Your task to perform on an android device: change text size in settings app Image 0: 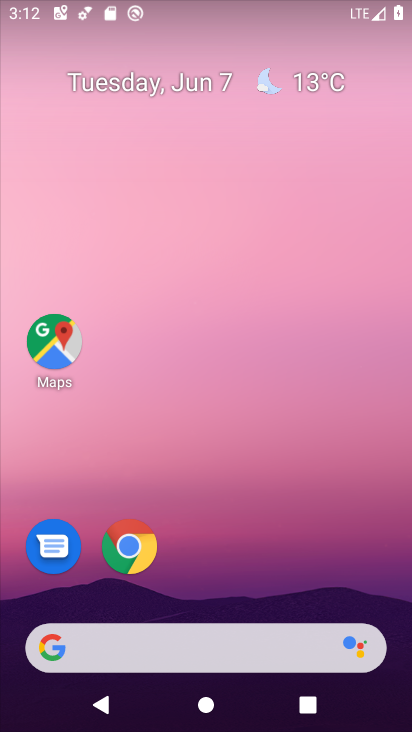
Step 0: drag from (323, 586) to (324, 102)
Your task to perform on an android device: change text size in settings app Image 1: 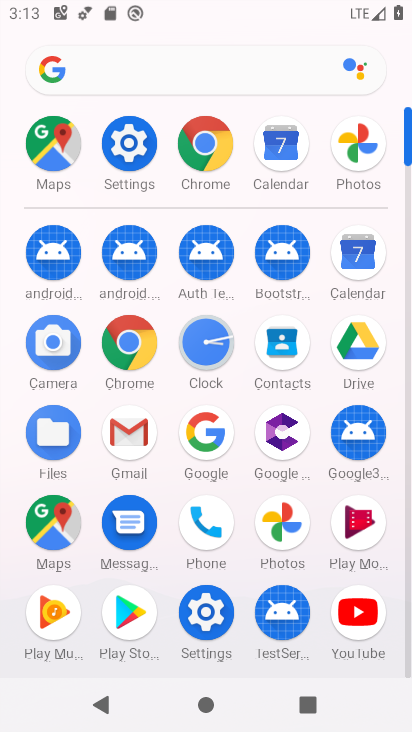
Step 1: click (144, 175)
Your task to perform on an android device: change text size in settings app Image 2: 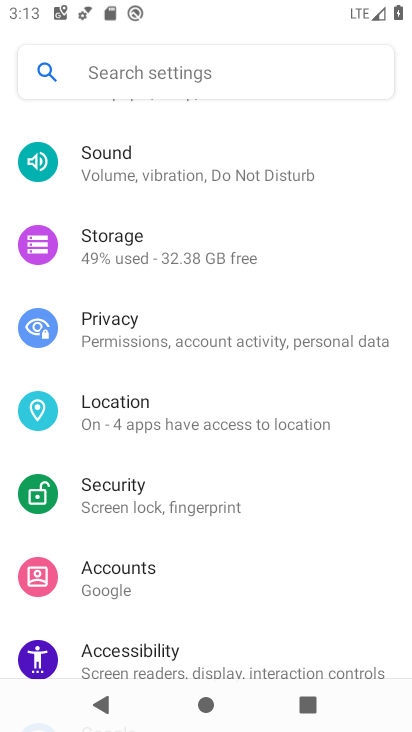
Step 2: drag from (345, 383) to (350, 487)
Your task to perform on an android device: change text size in settings app Image 3: 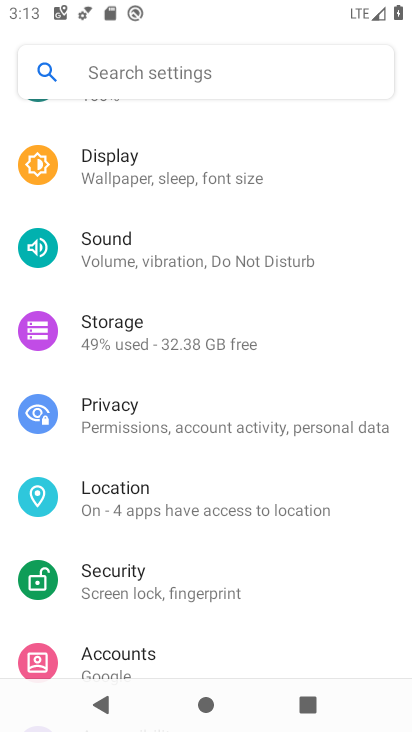
Step 3: drag from (330, 347) to (342, 437)
Your task to perform on an android device: change text size in settings app Image 4: 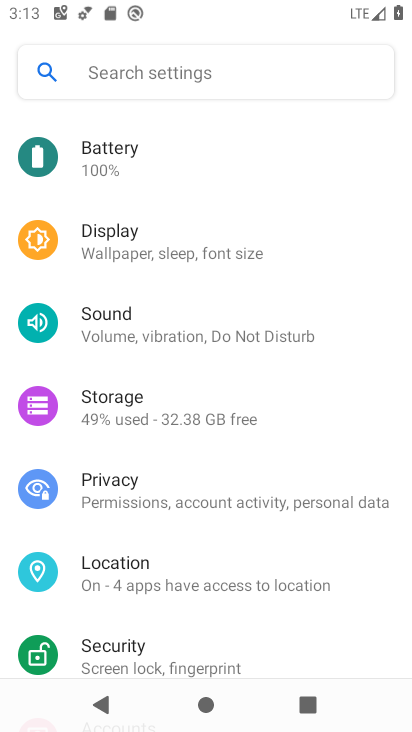
Step 4: drag from (338, 293) to (342, 436)
Your task to perform on an android device: change text size in settings app Image 5: 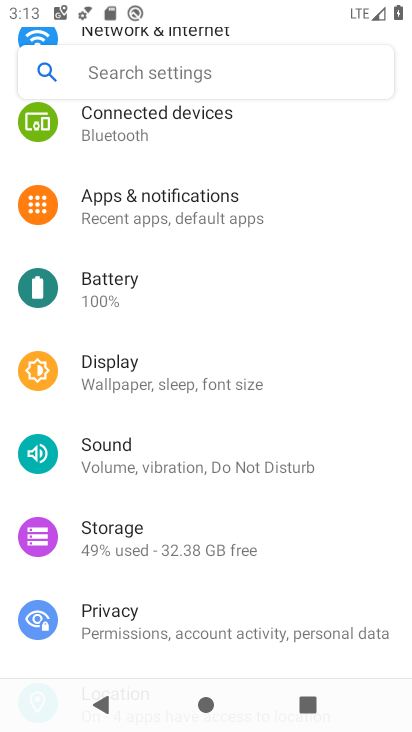
Step 5: click (232, 382)
Your task to perform on an android device: change text size in settings app Image 6: 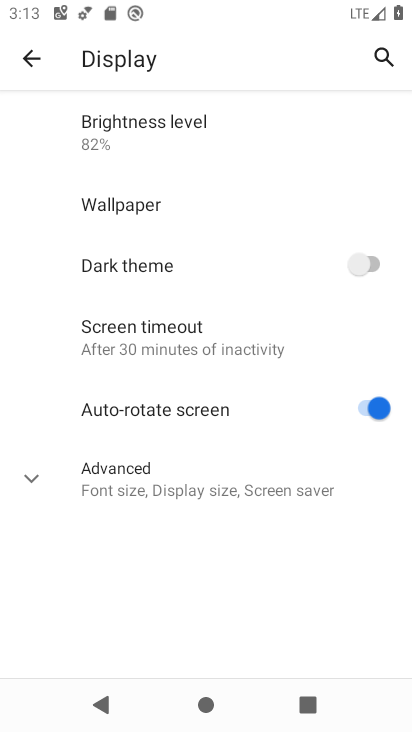
Step 6: click (226, 479)
Your task to perform on an android device: change text size in settings app Image 7: 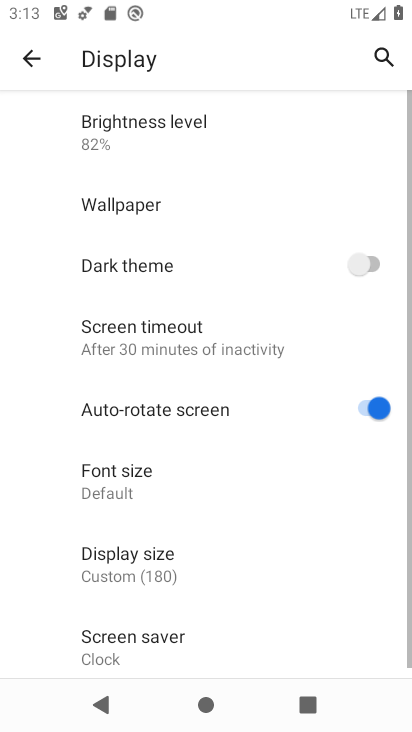
Step 7: drag from (258, 492) to (259, 358)
Your task to perform on an android device: change text size in settings app Image 8: 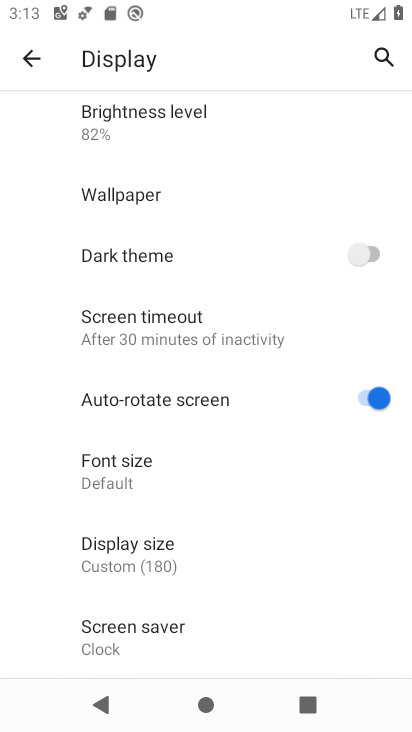
Step 8: click (205, 476)
Your task to perform on an android device: change text size in settings app Image 9: 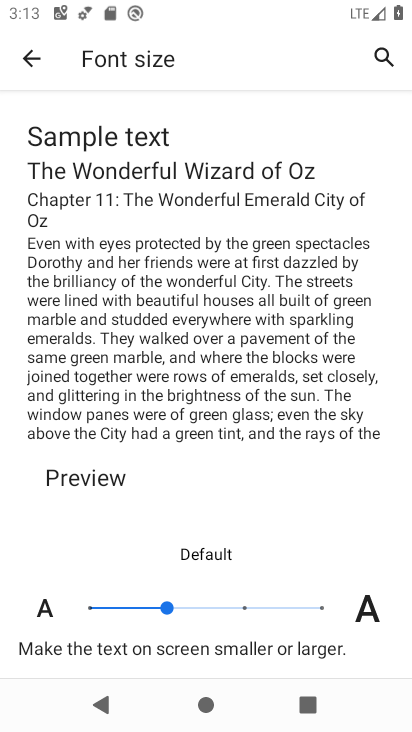
Step 9: click (248, 611)
Your task to perform on an android device: change text size in settings app Image 10: 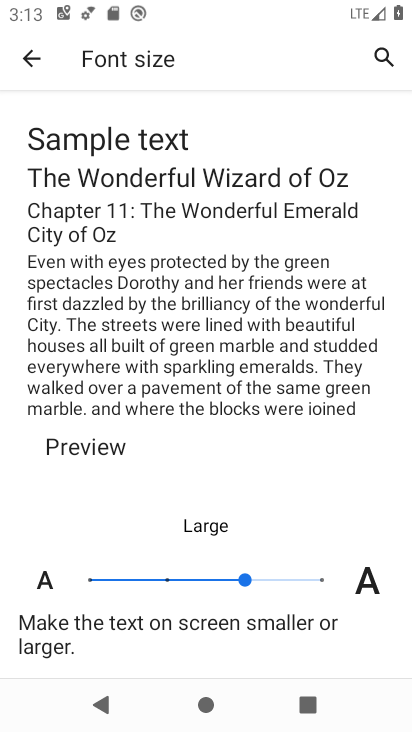
Step 10: task complete